Your task to perform on an android device: delete location history Image 0: 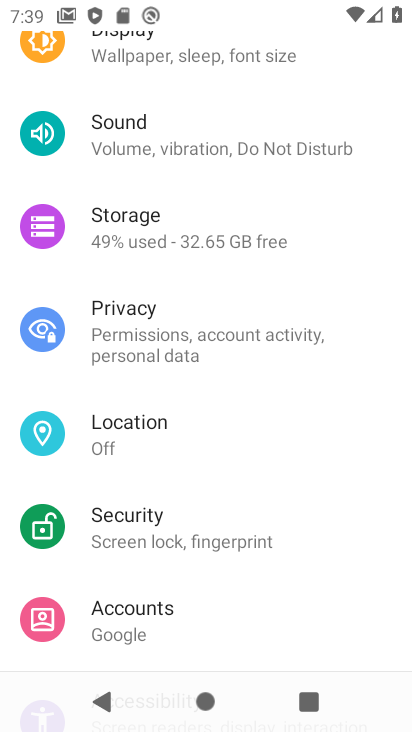
Step 0: press home button
Your task to perform on an android device: delete location history Image 1: 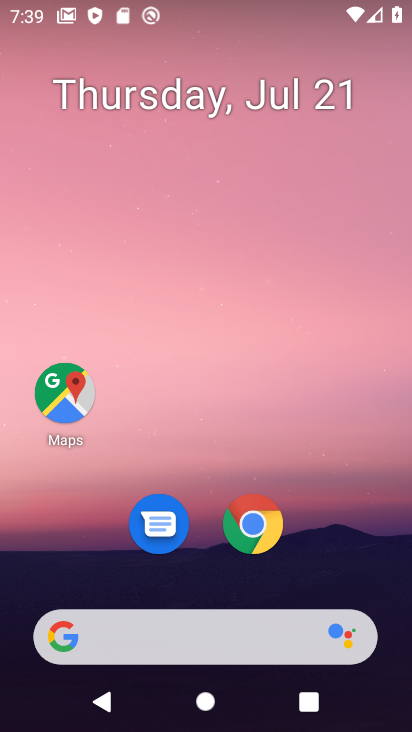
Step 1: click (57, 397)
Your task to perform on an android device: delete location history Image 2: 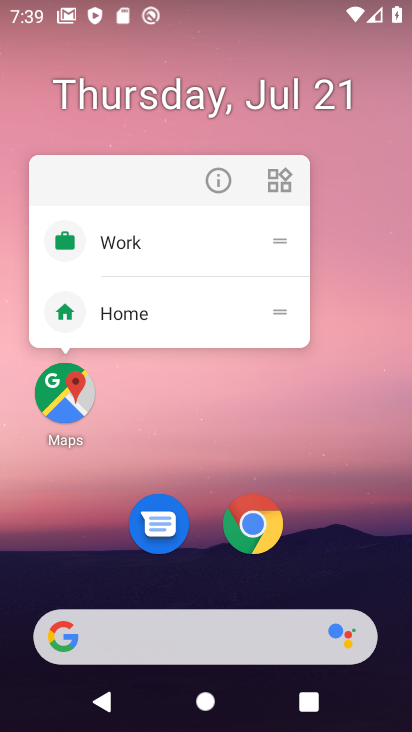
Step 2: click (64, 390)
Your task to perform on an android device: delete location history Image 3: 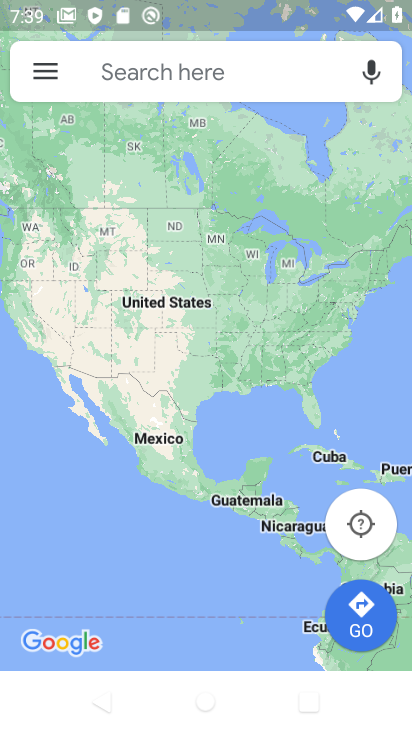
Step 3: click (46, 74)
Your task to perform on an android device: delete location history Image 4: 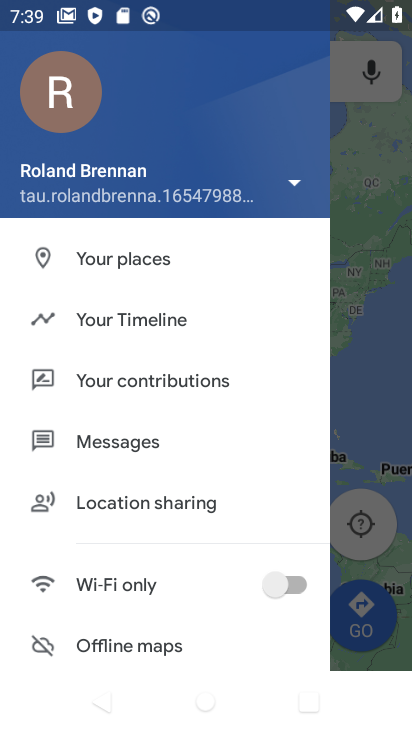
Step 4: click (163, 320)
Your task to perform on an android device: delete location history Image 5: 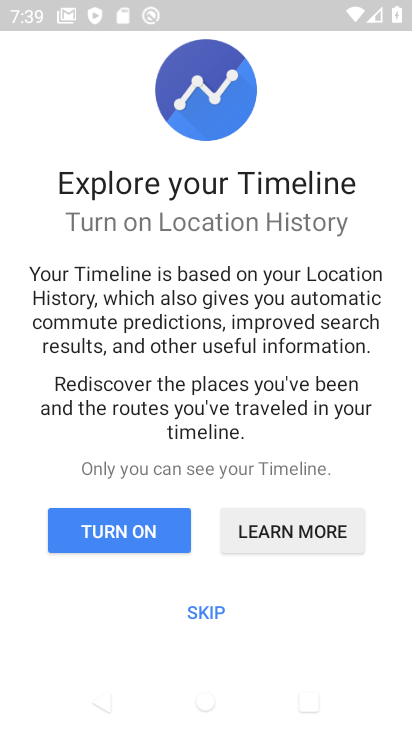
Step 5: click (195, 608)
Your task to perform on an android device: delete location history Image 6: 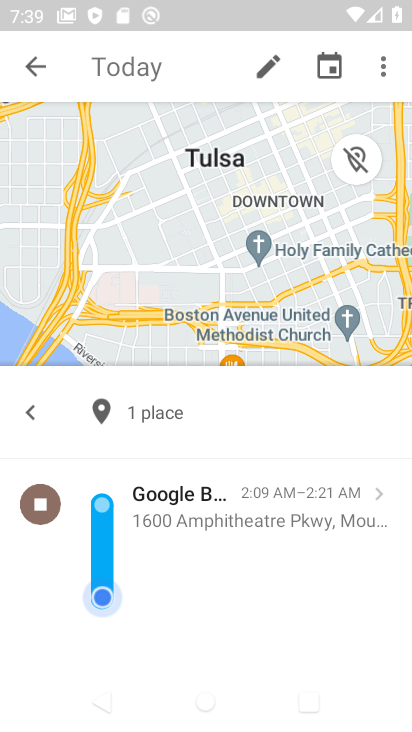
Step 6: click (382, 62)
Your task to perform on an android device: delete location history Image 7: 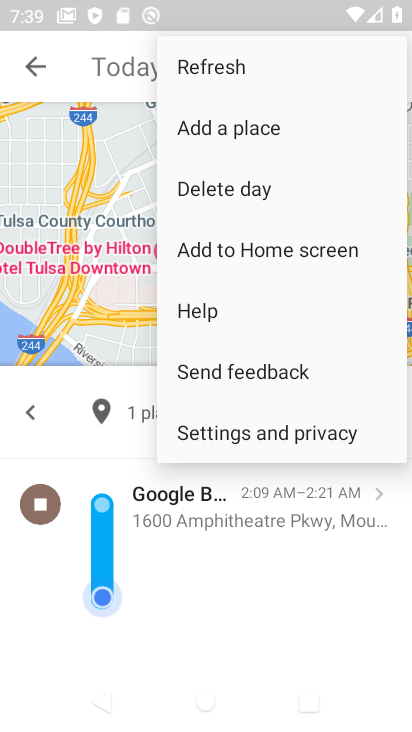
Step 7: click (246, 429)
Your task to perform on an android device: delete location history Image 8: 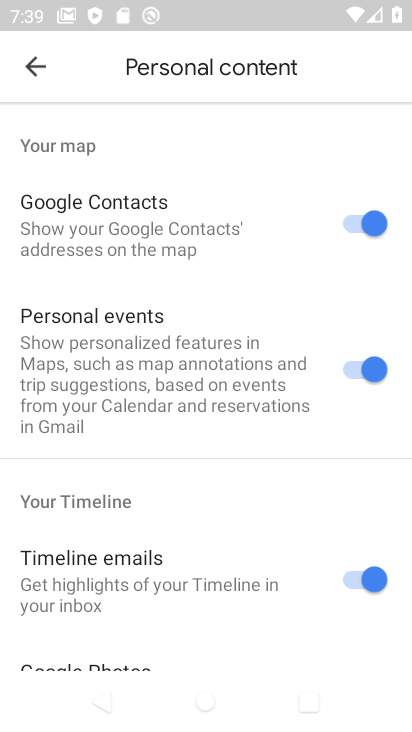
Step 8: drag from (189, 539) to (351, 72)
Your task to perform on an android device: delete location history Image 9: 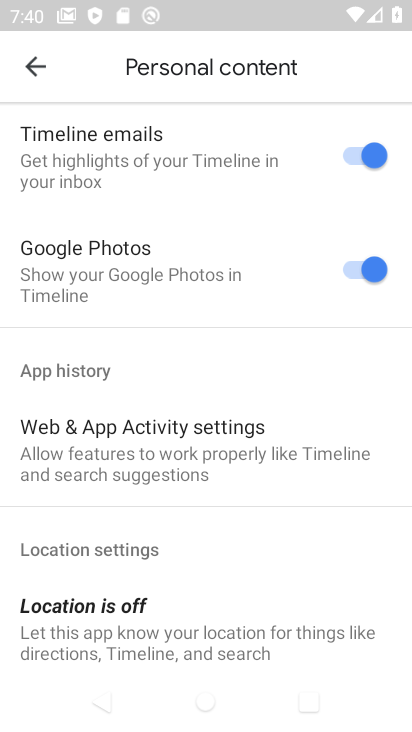
Step 9: drag from (231, 539) to (340, 214)
Your task to perform on an android device: delete location history Image 10: 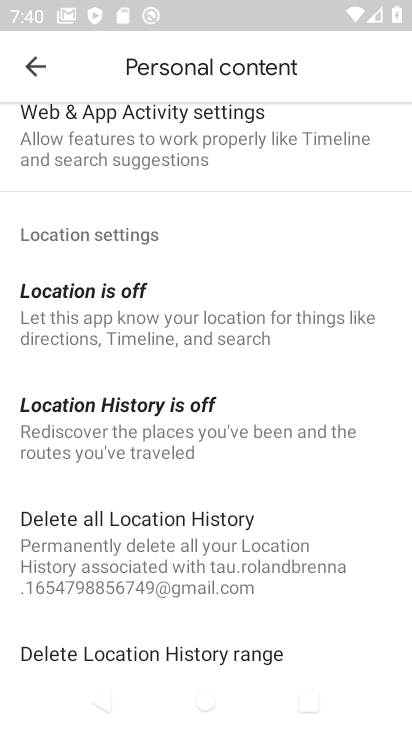
Step 10: click (128, 524)
Your task to perform on an android device: delete location history Image 11: 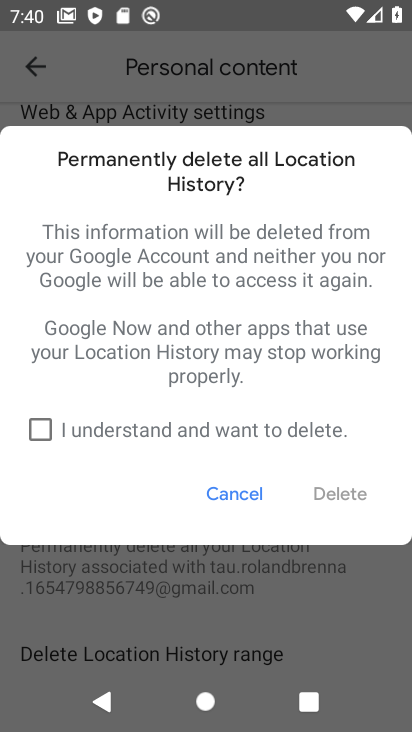
Step 11: click (35, 423)
Your task to perform on an android device: delete location history Image 12: 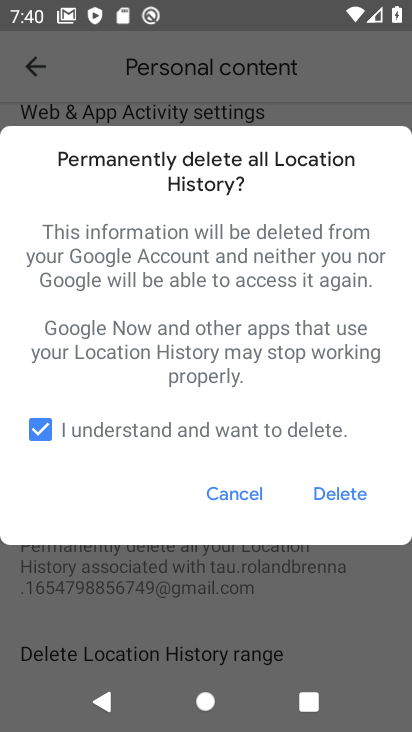
Step 12: click (357, 498)
Your task to perform on an android device: delete location history Image 13: 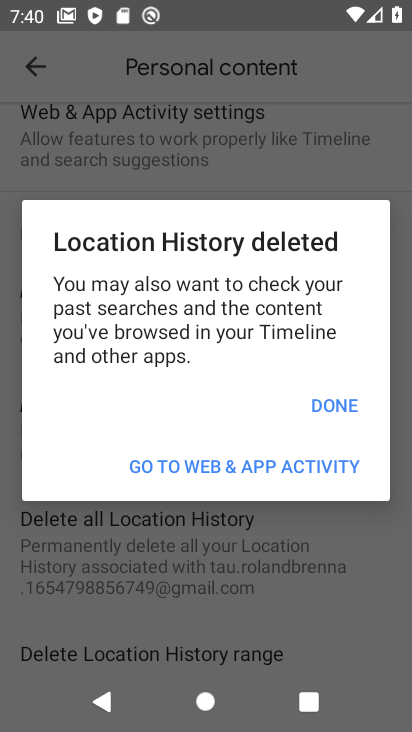
Step 13: click (342, 407)
Your task to perform on an android device: delete location history Image 14: 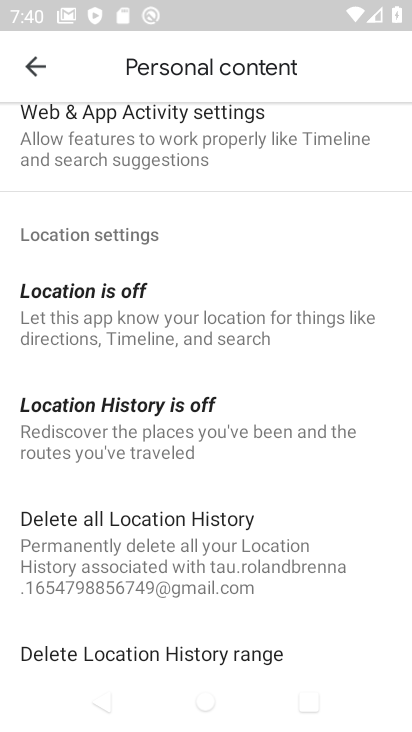
Step 14: task complete